Your task to perform on an android device: toggle javascript in the chrome app Image 0: 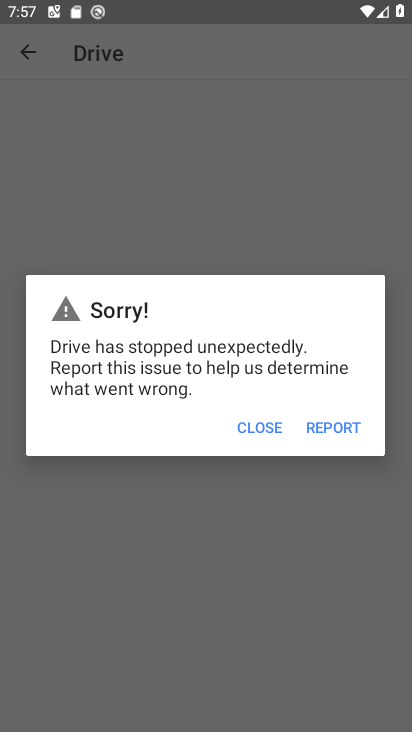
Step 0: press home button
Your task to perform on an android device: toggle javascript in the chrome app Image 1: 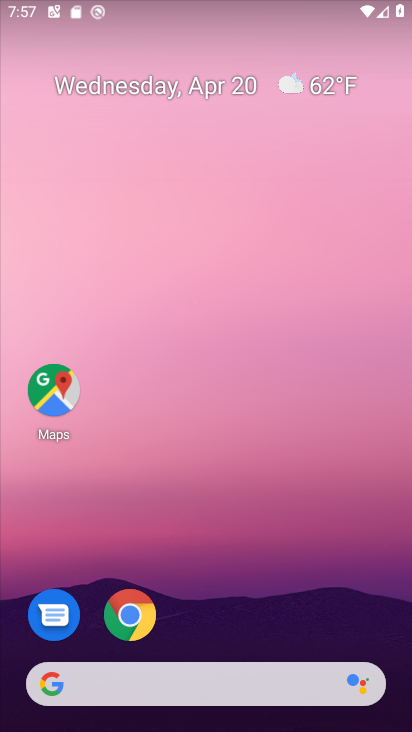
Step 1: click (142, 612)
Your task to perform on an android device: toggle javascript in the chrome app Image 2: 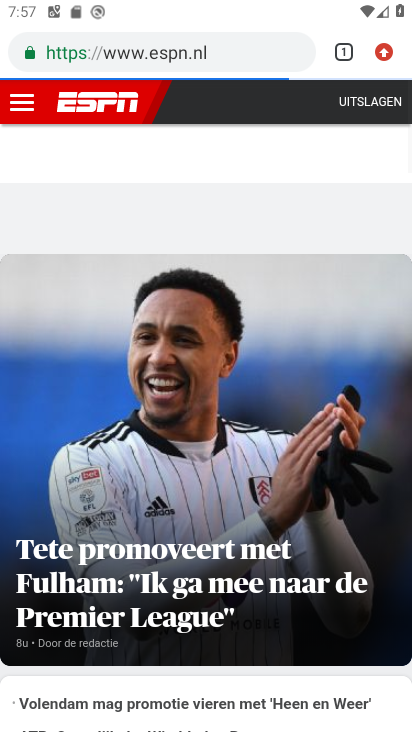
Step 2: click (390, 56)
Your task to perform on an android device: toggle javascript in the chrome app Image 3: 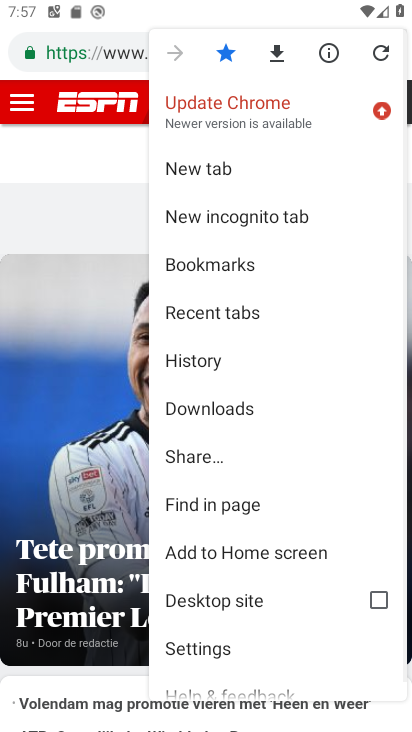
Step 3: drag from (204, 586) to (228, 387)
Your task to perform on an android device: toggle javascript in the chrome app Image 4: 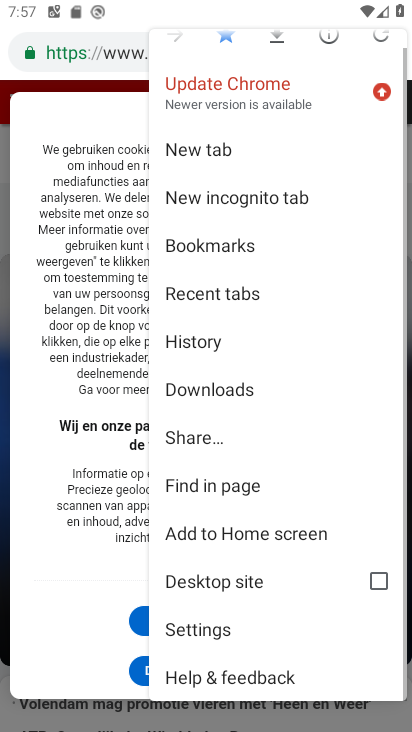
Step 4: click (209, 627)
Your task to perform on an android device: toggle javascript in the chrome app Image 5: 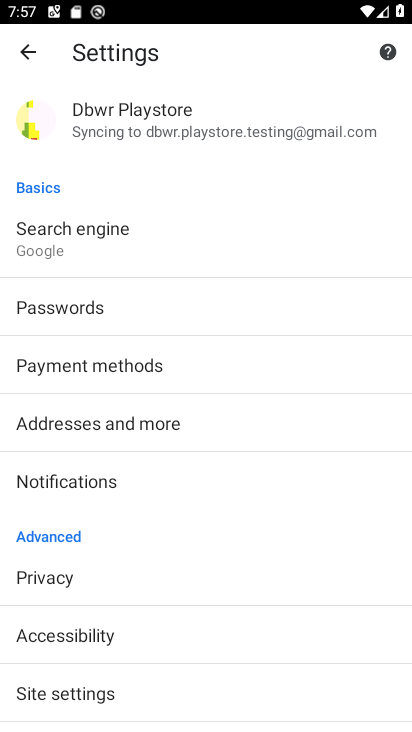
Step 5: click (45, 692)
Your task to perform on an android device: toggle javascript in the chrome app Image 6: 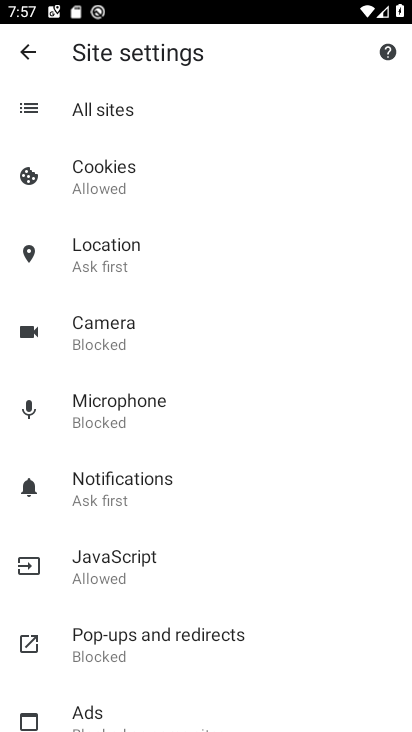
Step 6: click (122, 560)
Your task to perform on an android device: toggle javascript in the chrome app Image 7: 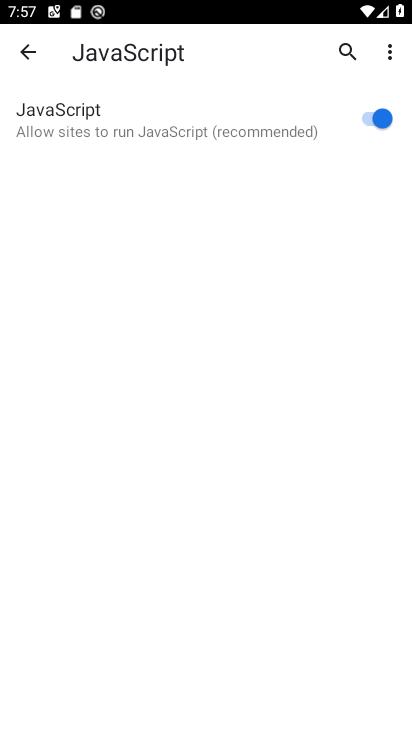
Step 7: click (373, 111)
Your task to perform on an android device: toggle javascript in the chrome app Image 8: 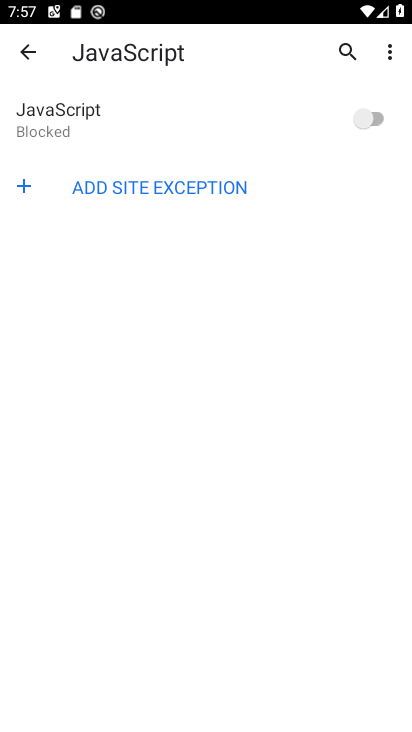
Step 8: task complete